Your task to perform on an android device: Show me popular videos on Youtube Image 0: 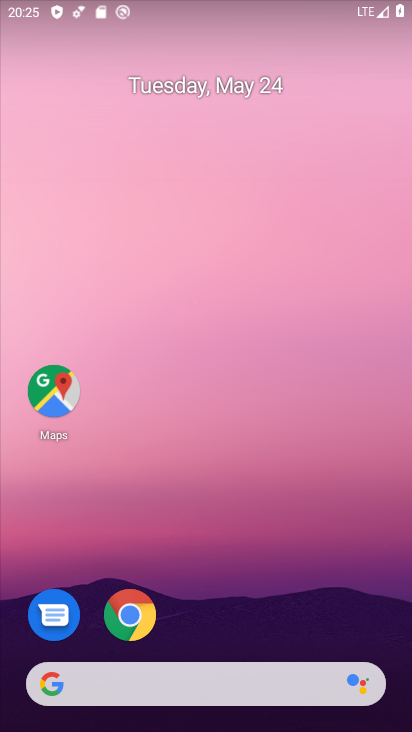
Step 0: drag from (222, 598) to (230, 365)
Your task to perform on an android device: Show me popular videos on Youtube Image 1: 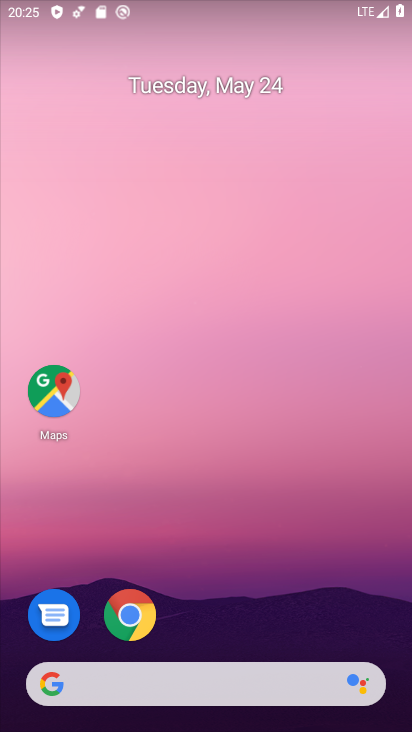
Step 1: drag from (244, 618) to (307, 233)
Your task to perform on an android device: Show me popular videos on Youtube Image 2: 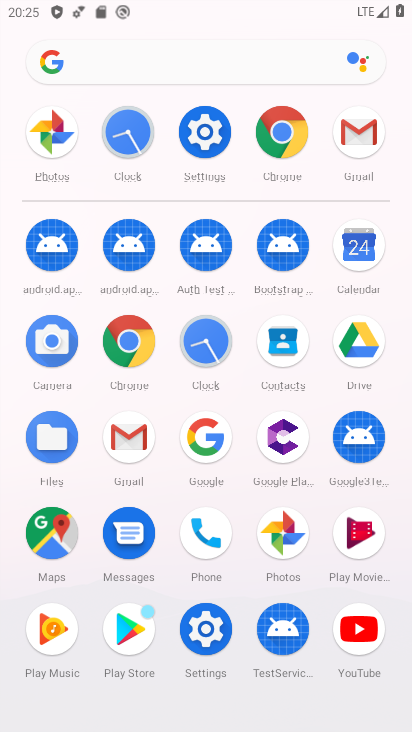
Step 2: click (367, 632)
Your task to perform on an android device: Show me popular videos on Youtube Image 3: 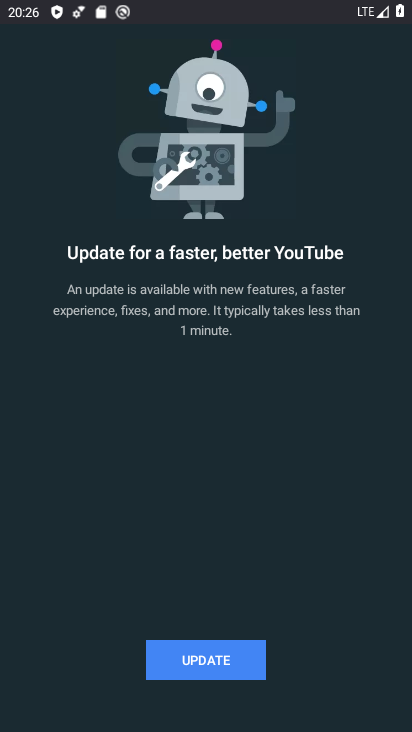
Step 3: task complete